Your task to perform on an android device: Open Chrome and go to settings Image 0: 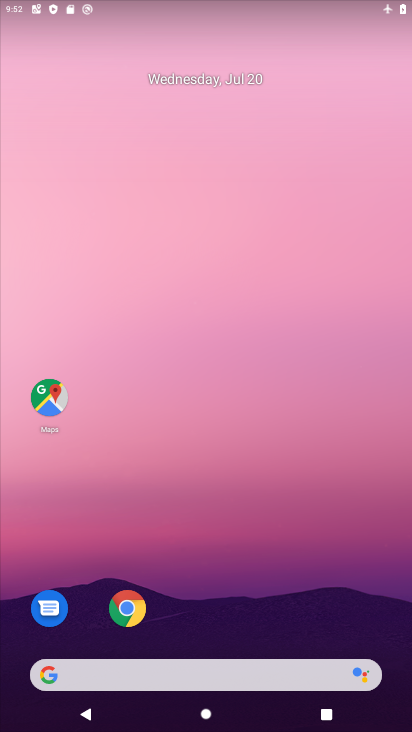
Step 0: click (125, 605)
Your task to perform on an android device: Open Chrome and go to settings Image 1: 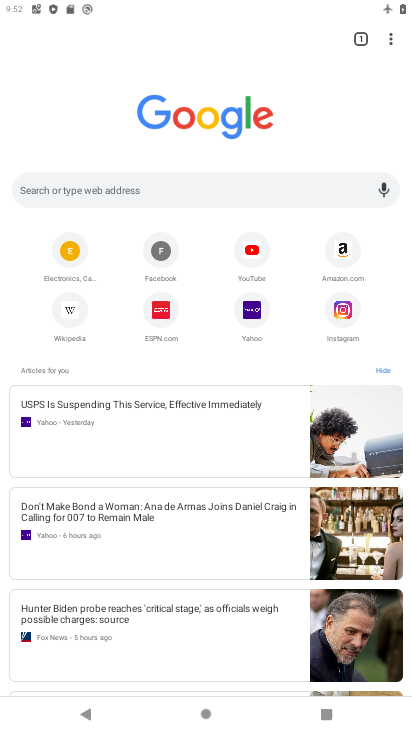
Step 1: click (391, 39)
Your task to perform on an android device: Open Chrome and go to settings Image 2: 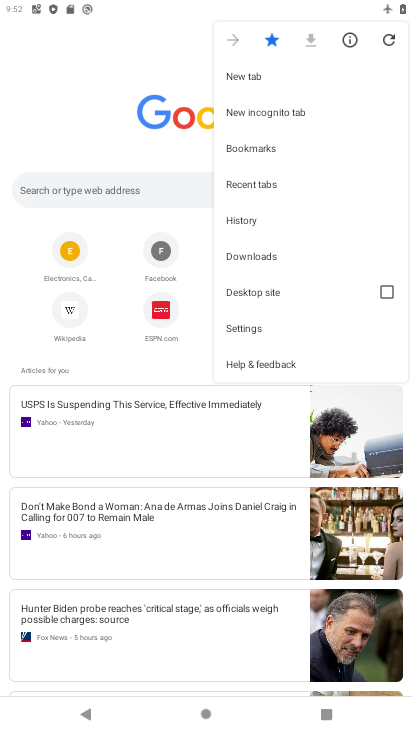
Step 2: click (248, 329)
Your task to perform on an android device: Open Chrome and go to settings Image 3: 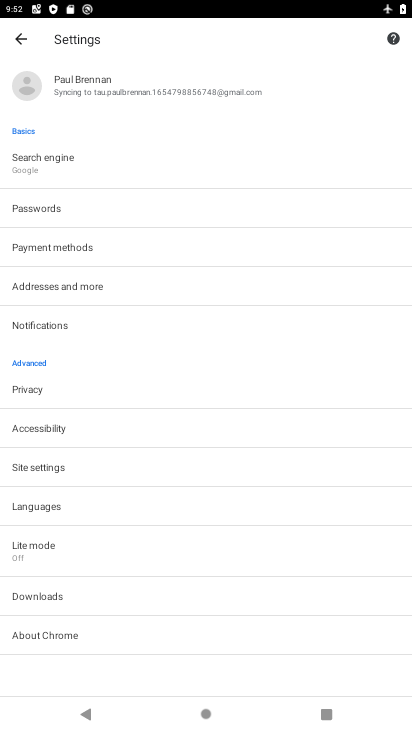
Step 3: task complete